Your task to perform on an android device: delete location history Image 0: 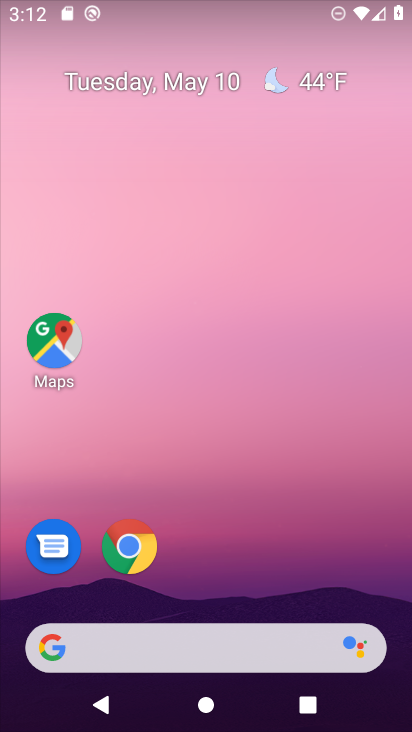
Step 0: drag from (249, 541) to (226, 33)
Your task to perform on an android device: delete location history Image 1: 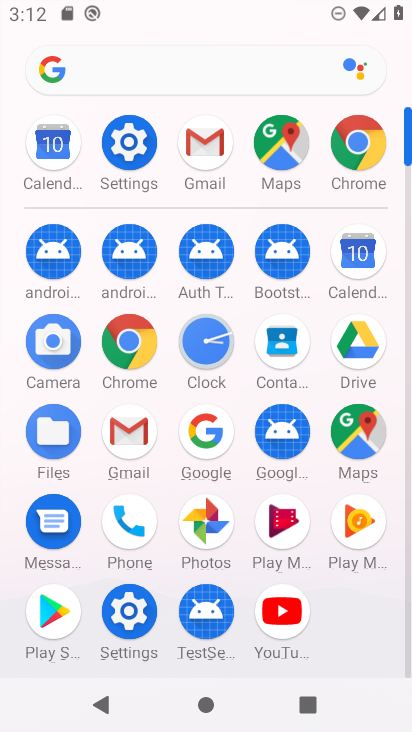
Step 1: click (291, 157)
Your task to perform on an android device: delete location history Image 2: 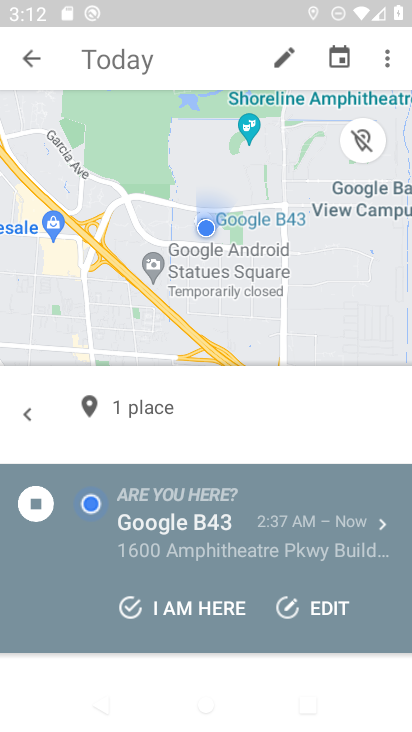
Step 2: click (391, 75)
Your task to perform on an android device: delete location history Image 3: 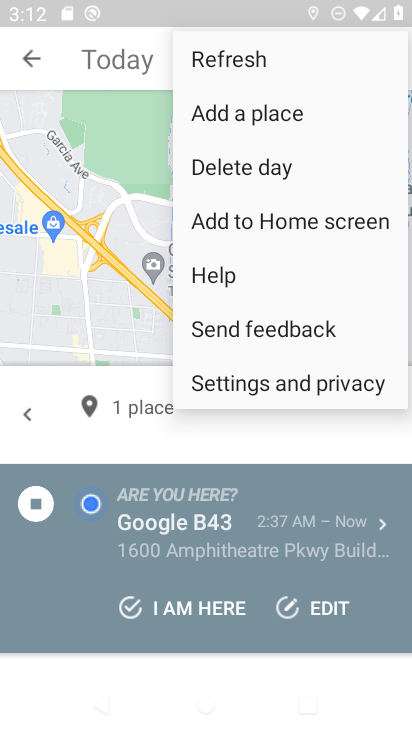
Step 3: click (280, 381)
Your task to perform on an android device: delete location history Image 4: 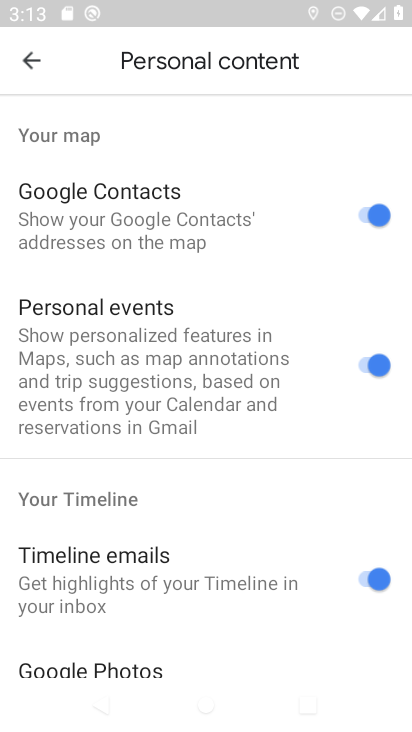
Step 4: drag from (297, 503) to (281, 151)
Your task to perform on an android device: delete location history Image 5: 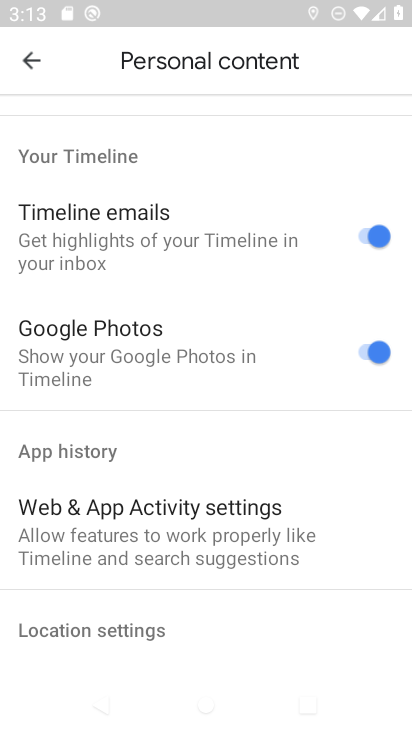
Step 5: drag from (251, 607) to (248, 165)
Your task to perform on an android device: delete location history Image 6: 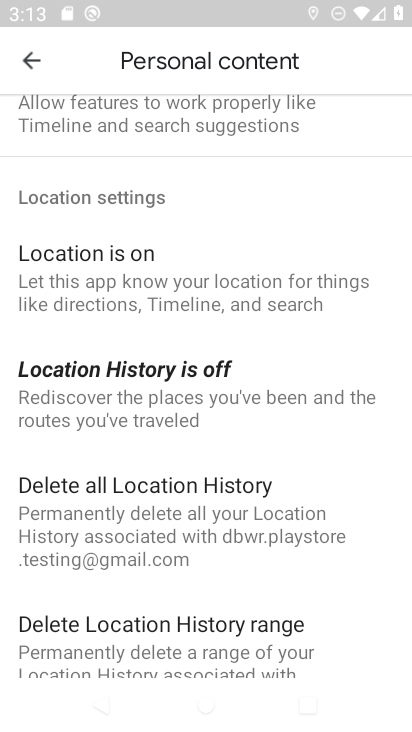
Step 6: click (195, 524)
Your task to perform on an android device: delete location history Image 7: 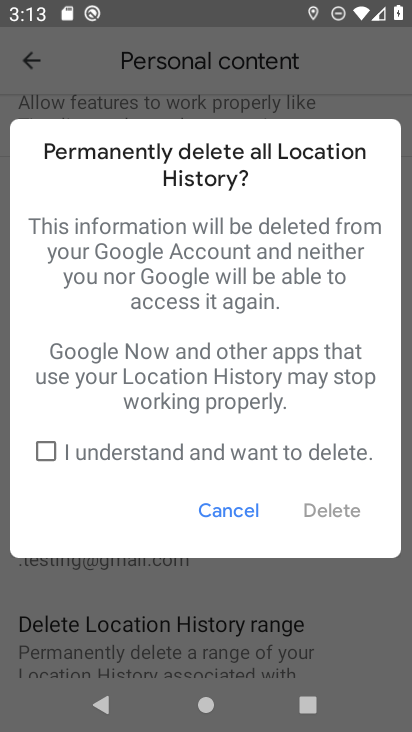
Step 7: click (50, 458)
Your task to perform on an android device: delete location history Image 8: 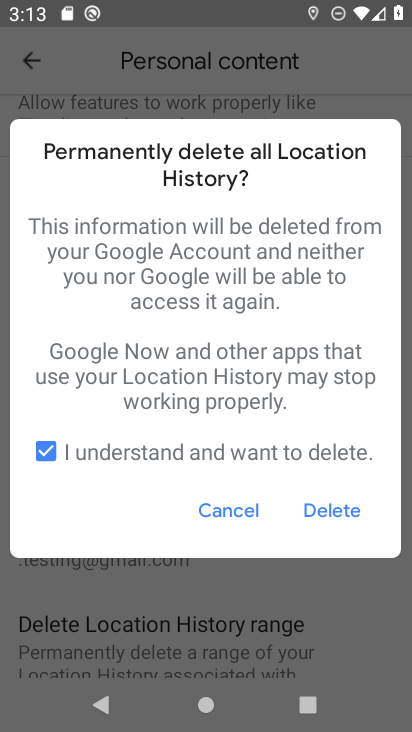
Step 8: click (336, 511)
Your task to perform on an android device: delete location history Image 9: 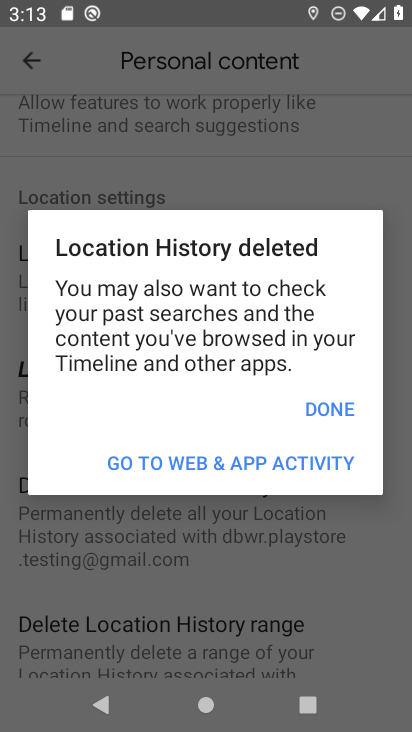
Step 9: click (335, 410)
Your task to perform on an android device: delete location history Image 10: 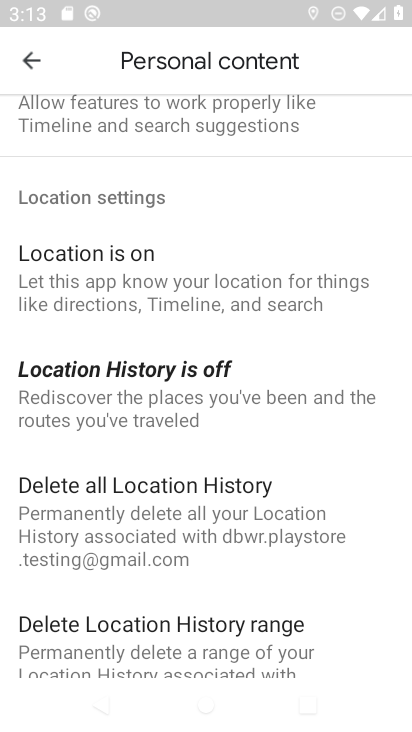
Step 10: task complete